Your task to perform on an android device: open a new tab in the chrome app Image 0: 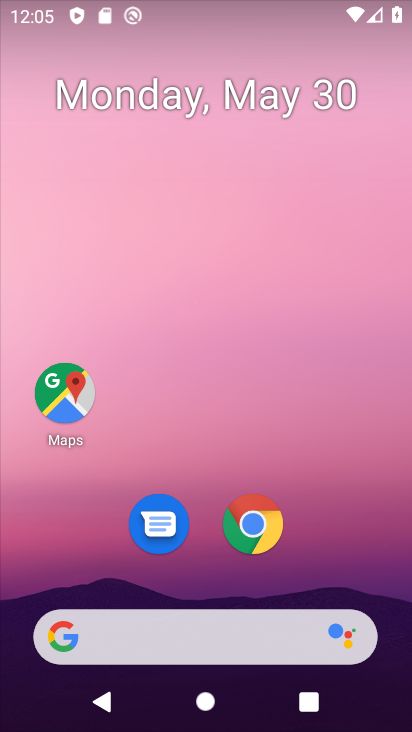
Step 0: click (263, 526)
Your task to perform on an android device: open a new tab in the chrome app Image 1: 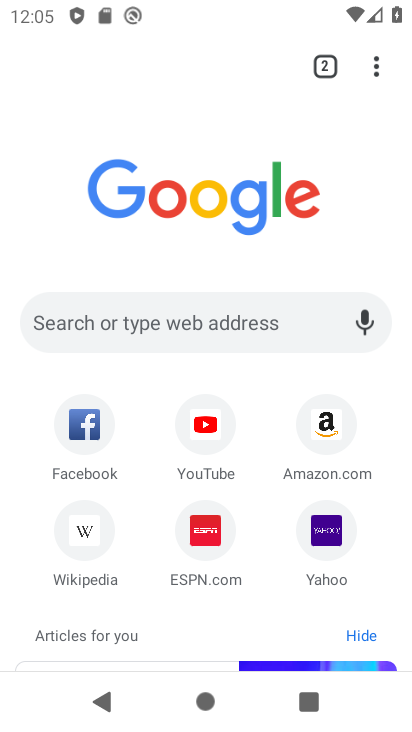
Step 1: click (372, 68)
Your task to perform on an android device: open a new tab in the chrome app Image 2: 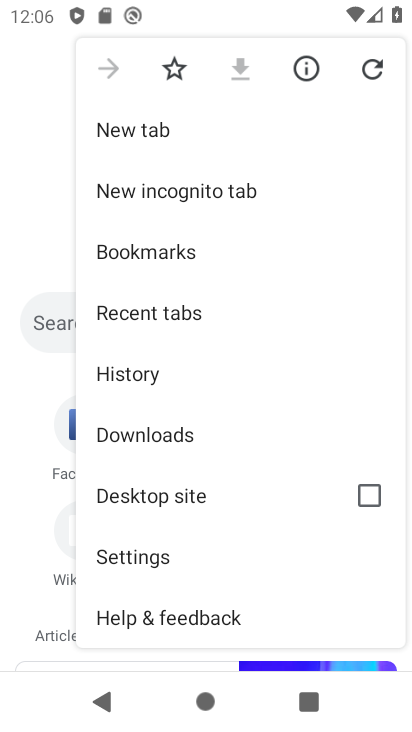
Step 2: click (190, 133)
Your task to perform on an android device: open a new tab in the chrome app Image 3: 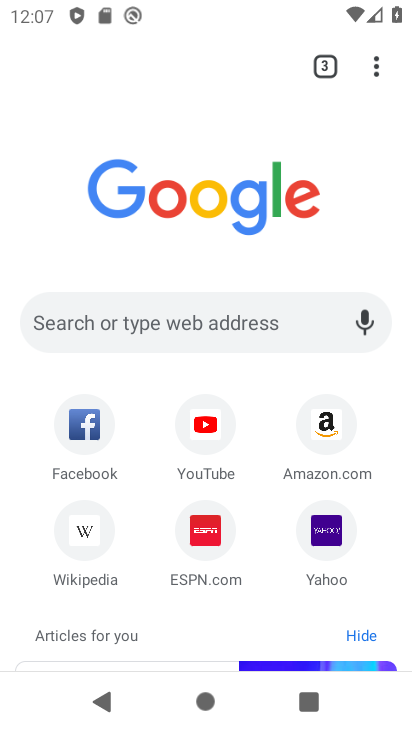
Step 3: task complete